Your task to perform on an android device: Open the calendar and show me this week's events? Image 0: 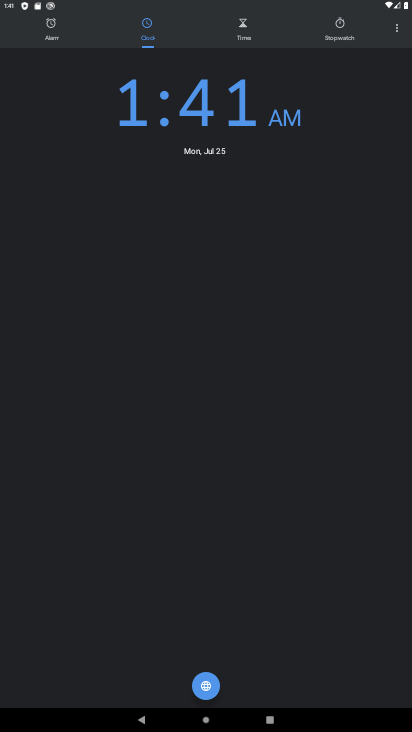
Step 0: press home button
Your task to perform on an android device: Open the calendar and show me this week's events? Image 1: 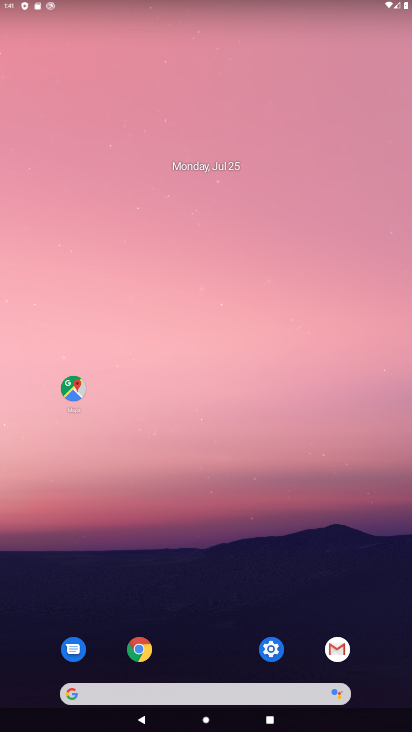
Step 1: drag from (258, 711) to (346, 191)
Your task to perform on an android device: Open the calendar and show me this week's events? Image 2: 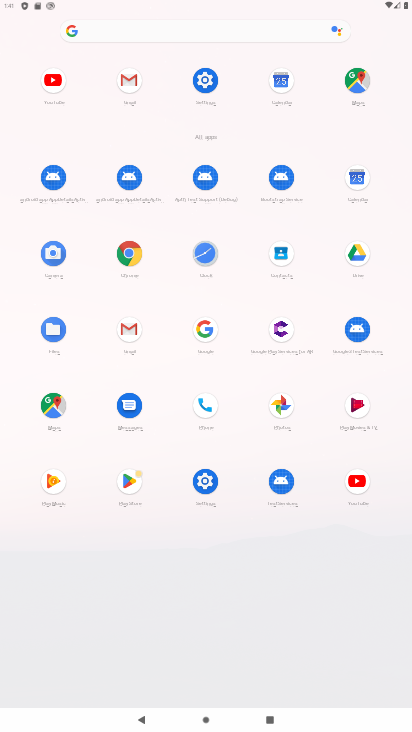
Step 2: click (351, 180)
Your task to perform on an android device: Open the calendar and show me this week's events? Image 3: 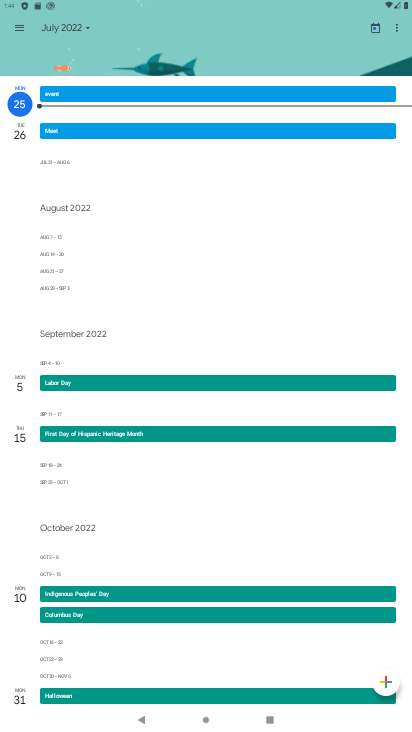
Step 3: task complete